Your task to perform on an android device: Show me the best rated 4K TV on Walmart. Image 0: 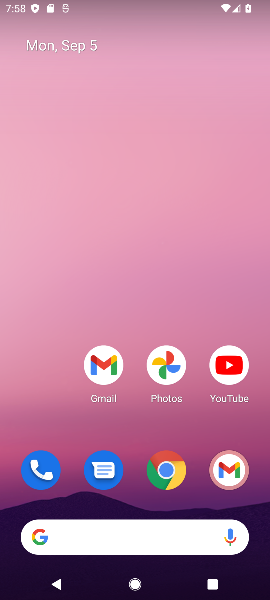
Step 0: click (144, 529)
Your task to perform on an android device: Show me the best rated 4K TV on Walmart. Image 1: 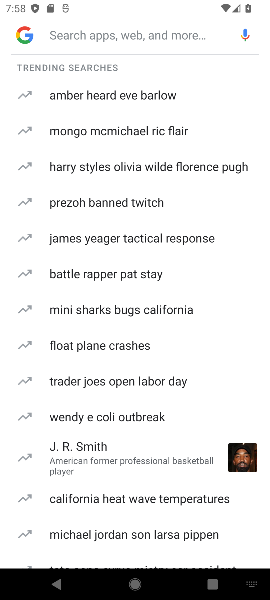
Step 1: type "walmart"
Your task to perform on an android device: Show me the best rated 4K TV on Walmart. Image 2: 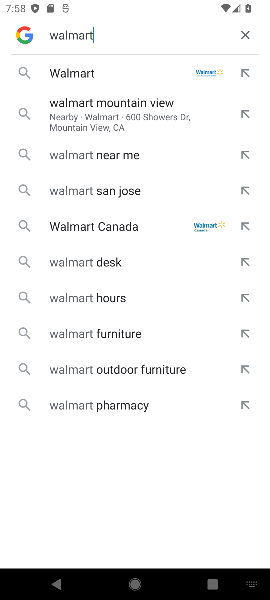
Step 2: click (87, 69)
Your task to perform on an android device: Show me the best rated 4K TV on Walmart. Image 3: 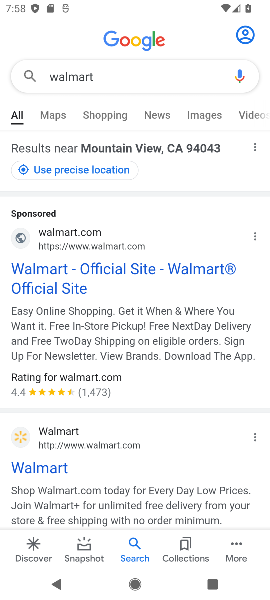
Step 3: click (39, 464)
Your task to perform on an android device: Show me the best rated 4K TV on Walmart. Image 4: 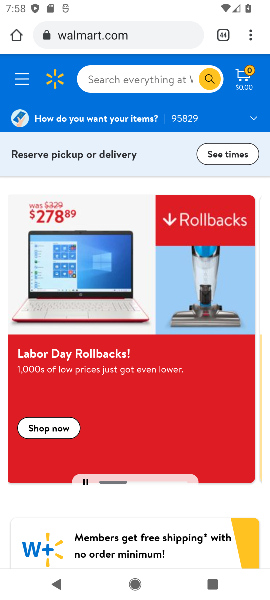
Step 4: click (135, 78)
Your task to perform on an android device: Show me the best rated 4K TV on Walmart. Image 5: 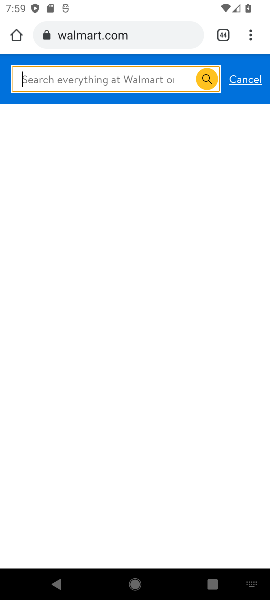
Step 5: type "best rated 4k tv"
Your task to perform on an android device: Show me the best rated 4K TV on Walmart. Image 6: 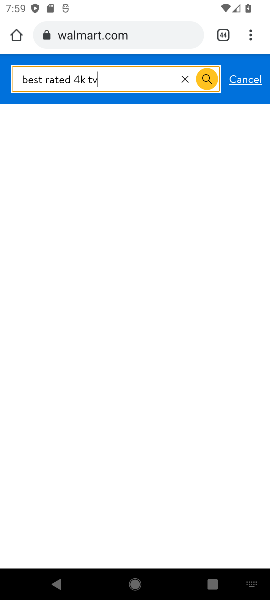
Step 6: click (206, 79)
Your task to perform on an android device: Show me the best rated 4K TV on Walmart. Image 7: 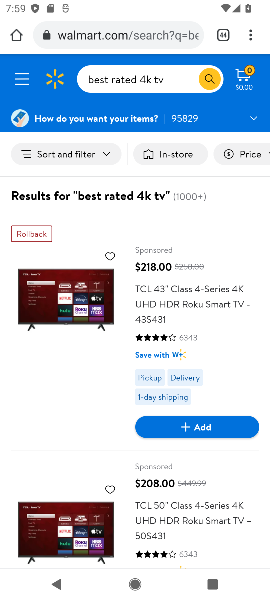
Step 7: task complete